Your task to perform on an android device: Go to notification settings Image 0: 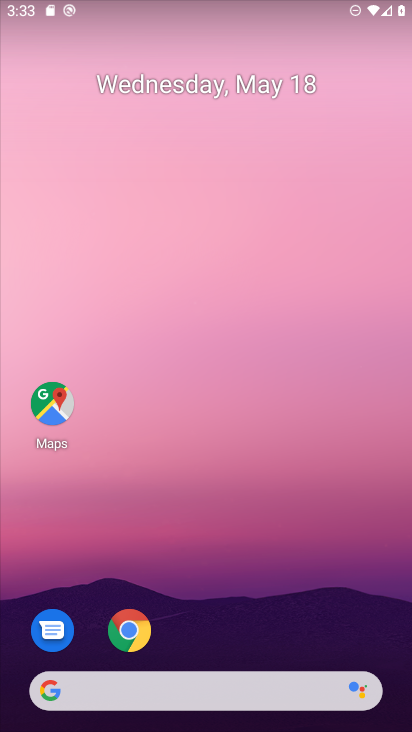
Step 0: click (128, 625)
Your task to perform on an android device: Go to notification settings Image 1: 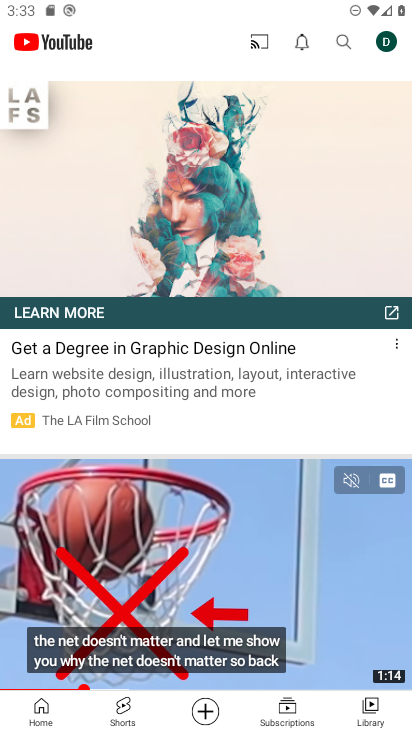
Step 1: press home button
Your task to perform on an android device: Go to notification settings Image 2: 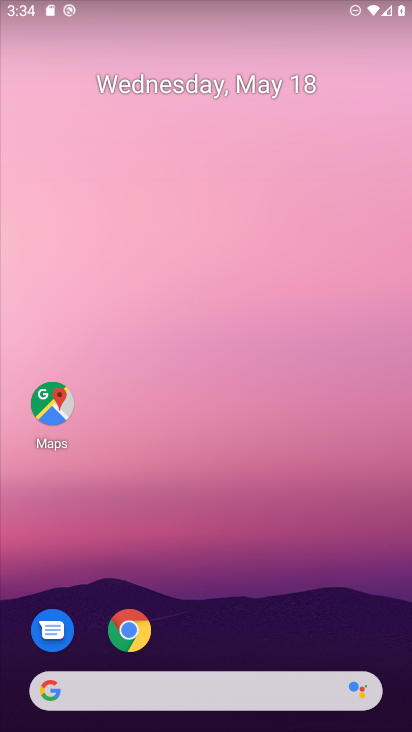
Step 2: drag from (213, 652) to (268, 68)
Your task to perform on an android device: Go to notification settings Image 3: 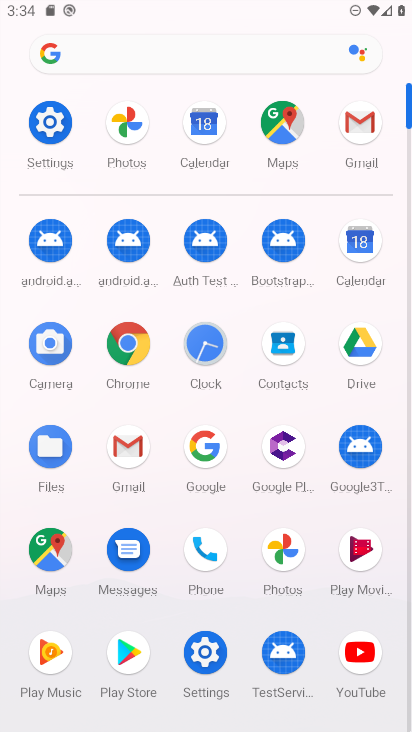
Step 3: click (48, 117)
Your task to perform on an android device: Go to notification settings Image 4: 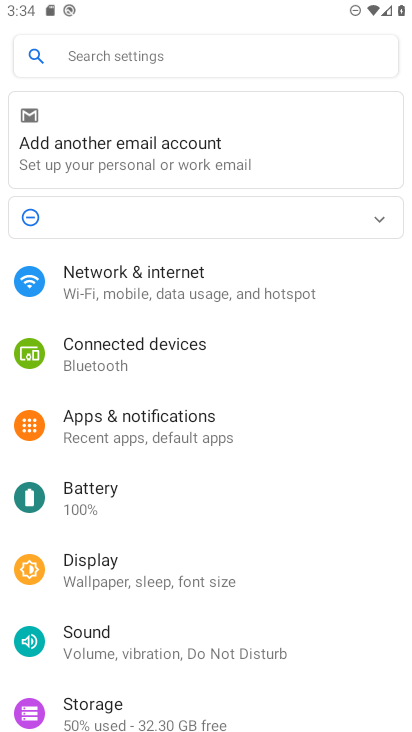
Step 4: click (166, 421)
Your task to perform on an android device: Go to notification settings Image 5: 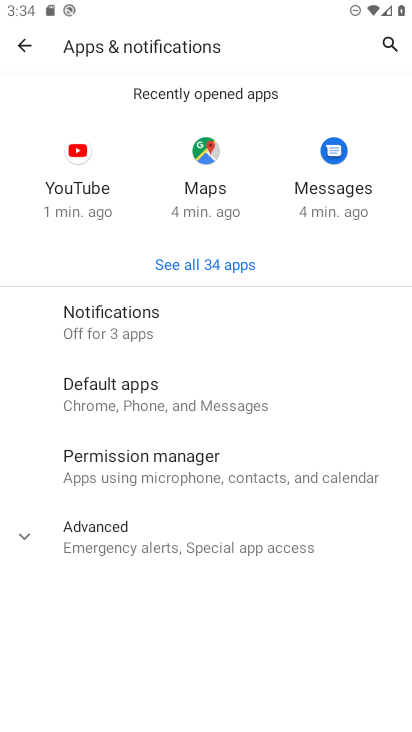
Step 5: click (179, 319)
Your task to perform on an android device: Go to notification settings Image 6: 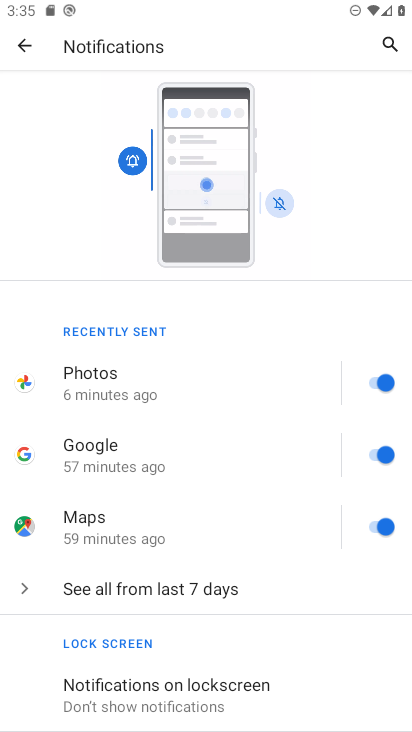
Step 6: drag from (237, 624) to (279, 243)
Your task to perform on an android device: Go to notification settings Image 7: 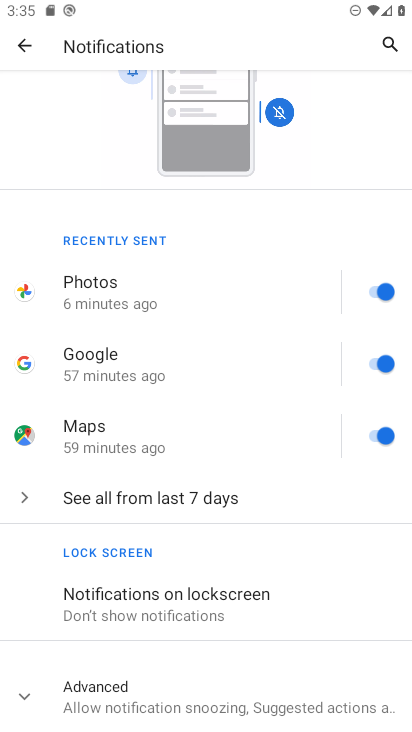
Step 7: click (141, 696)
Your task to perform on an android device: Go to notification settings Image 8: 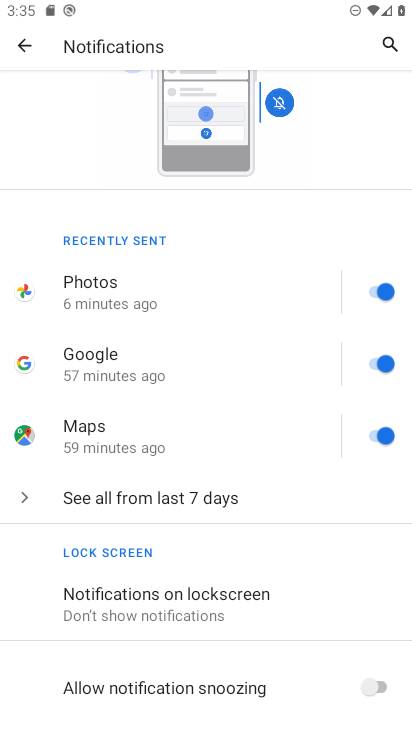
Step 8: task complete